Your task to perform on an android device: open a new tab in the chrome app Image 0: 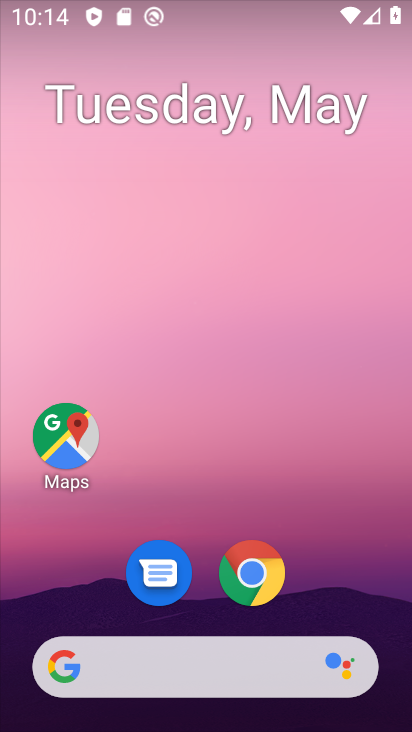
Step 0: click (263, 569)
Your task to perform on an android device: open a new tab in the chrome app Image 1: 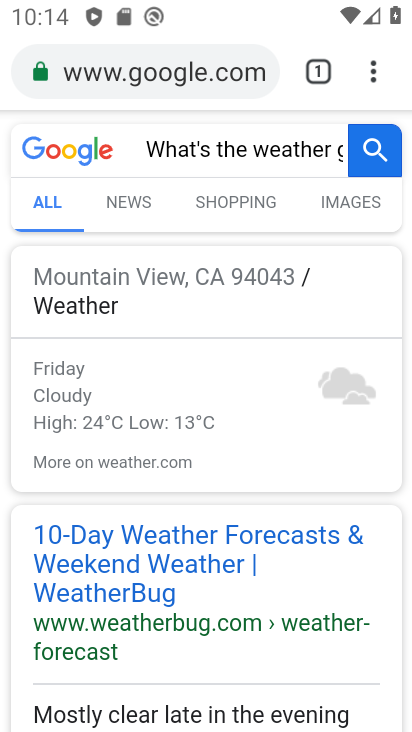
Step 1: task complete